Your task to perform on an android device: Open sound settings Image 0: 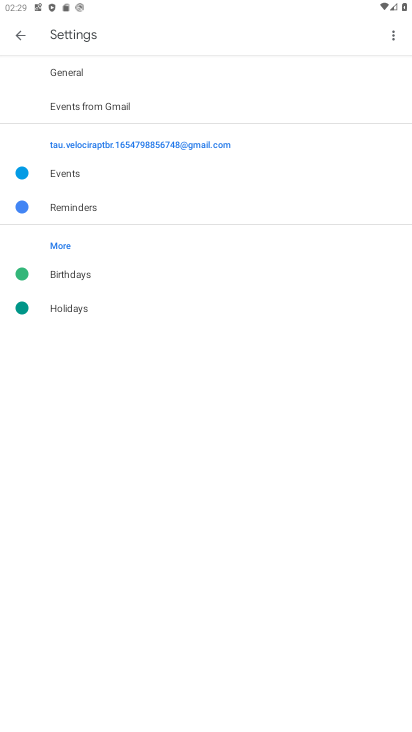
Step 0: press back button
Your task to perform on an android device: Open sound settings Image 1: 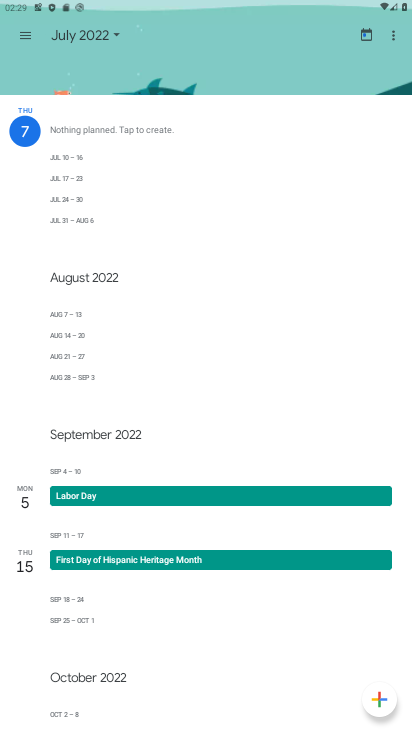
Step 1: press home button
Your task to perform on an android device: Open sound settings Image 2: 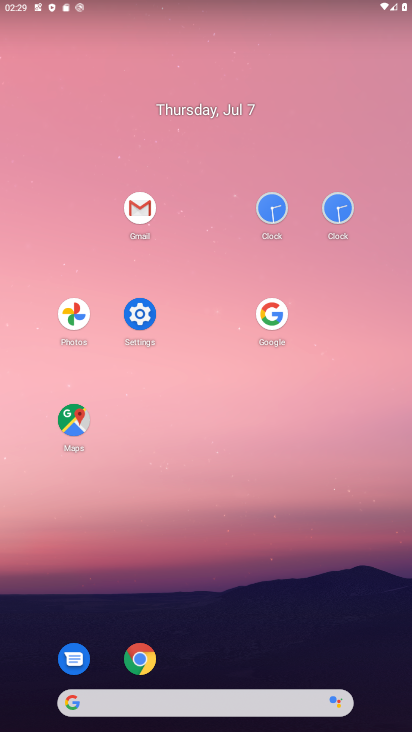
Step 2: click (128, 303)
Your task to perform on an android device: Open sound settings Image 3: 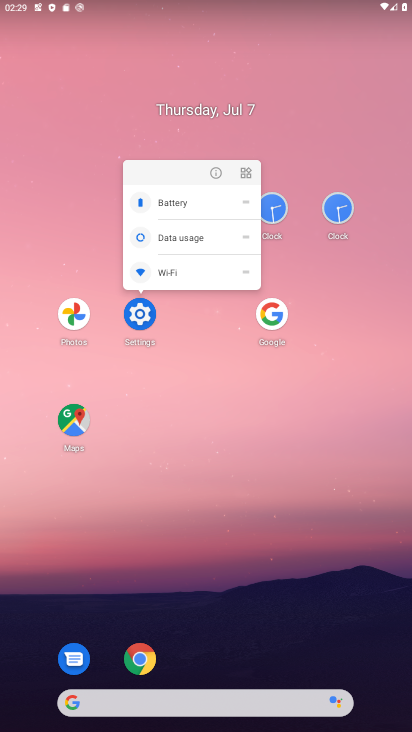
Step 3: click (128, 303)
Your task to perform on an android device: Open sound settings Image 4: 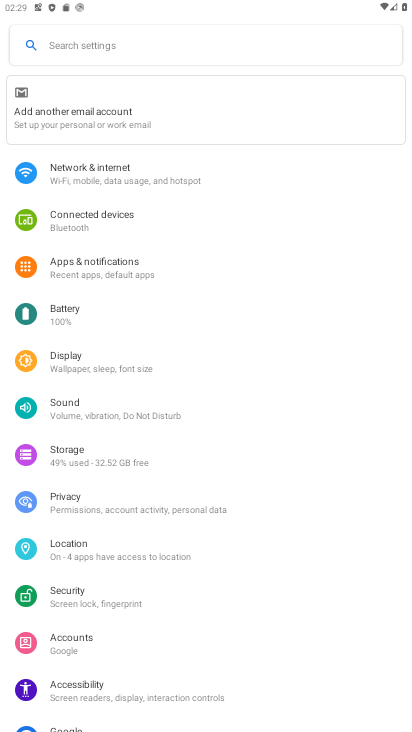
Step 4: click (225, 416)
Your task to perform on an android device: Open sound settings Image 5: 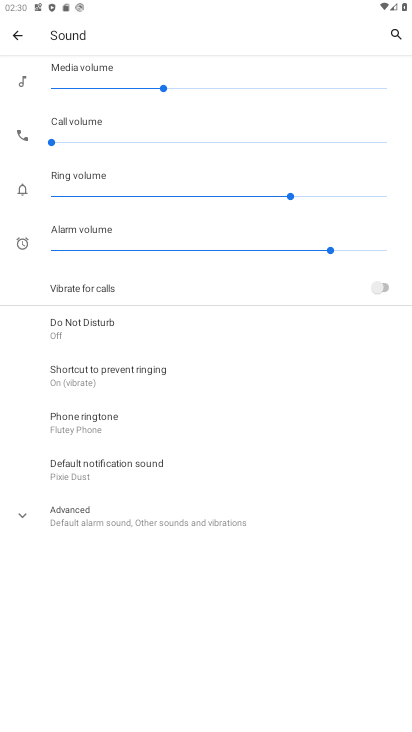
Step 5: task complete